Your task to perform on an android device: star an email in the gmail app Image 0: 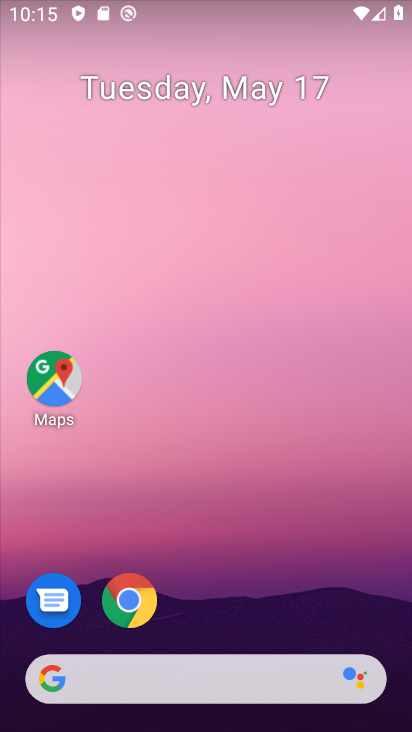
Step 0: drag from (202, 569) to (294, 7)
Your task to perform on an android device: star an email in the gmail app Image 1: 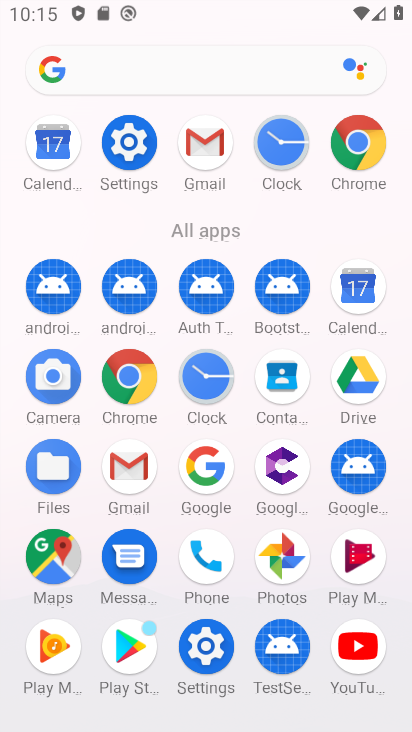
Step 1: click (202, 143)
Your task to perform on an android device: star an email in the gmail app Image 2: 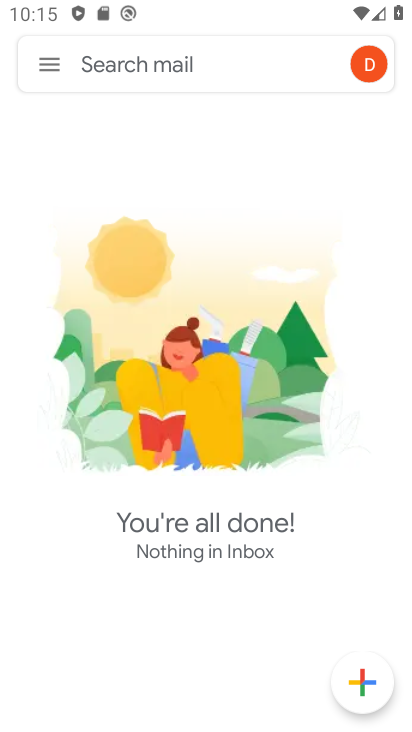
Step 2: click (47, 54)
Your task to perform on an android device: star an email in the gmail app Image 3: 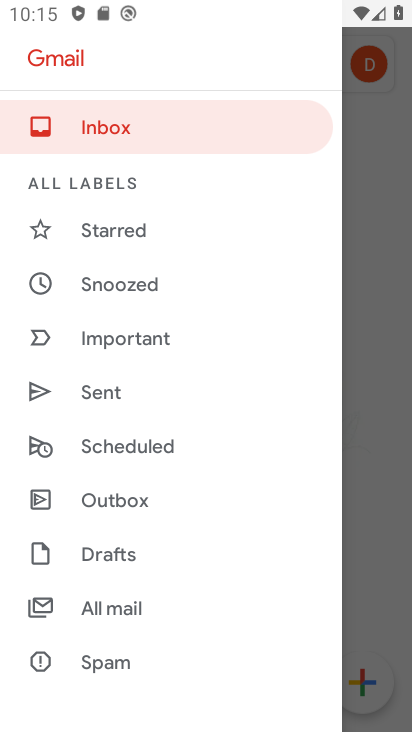
Step 3: drag from (121, 662) to (176, 128)
Your task to perform on an android device: star an email in the gmail app Image 4: 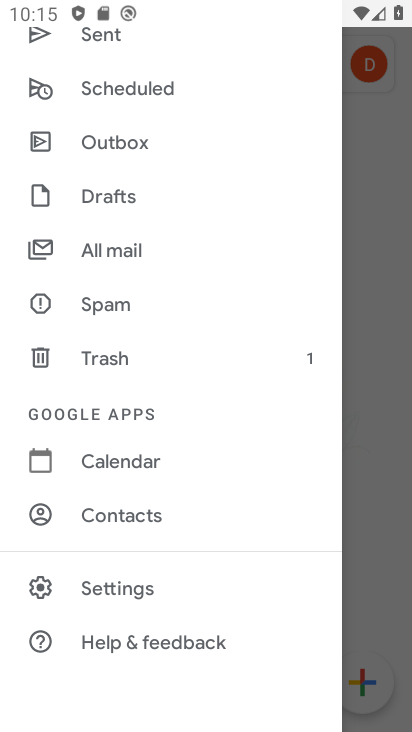
Step 4: click (97, 244)
Your task to perform on an android device: star an email in the gmail app Image 5: 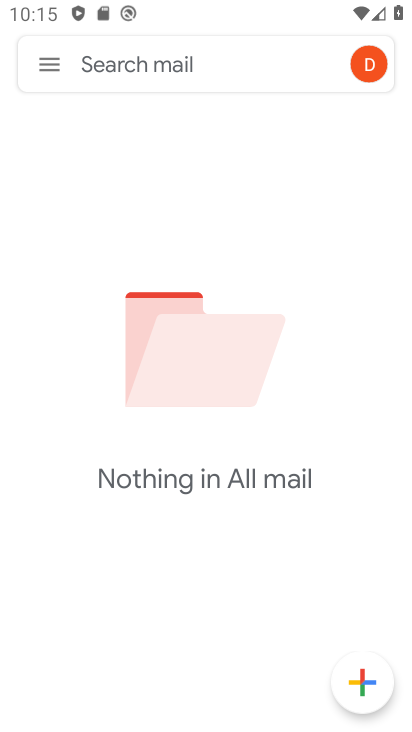
Step 5: task complete